Your task to perform on an android device: Check the news Image 0: 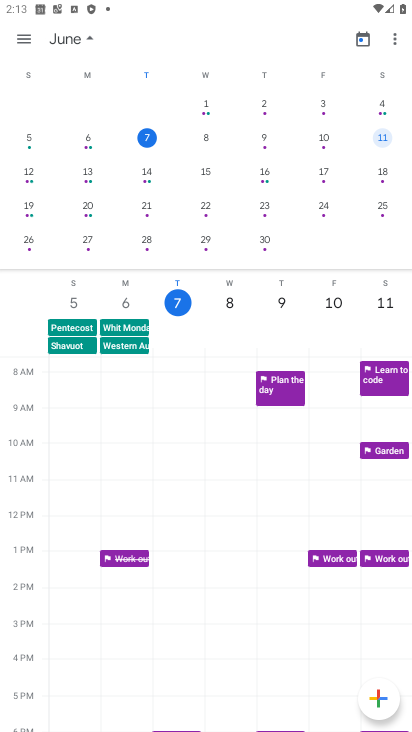
Step 0: press home button
Your task to perform on an android device: Check the news Image 1: 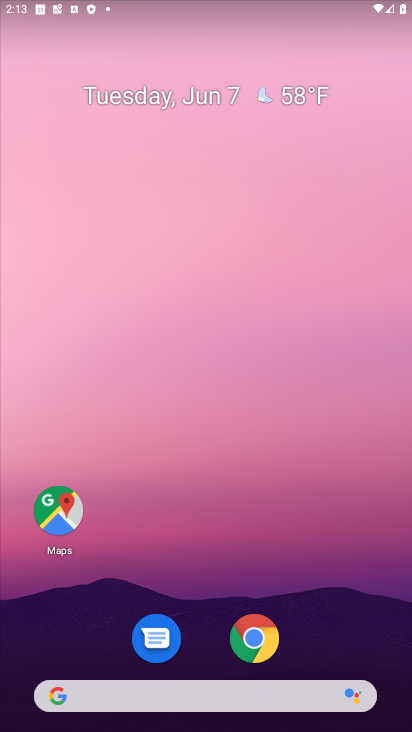
Step 1: drag from (180, 601) to (108, 195)
Your task to perform on an android device: Check the news Image 2: 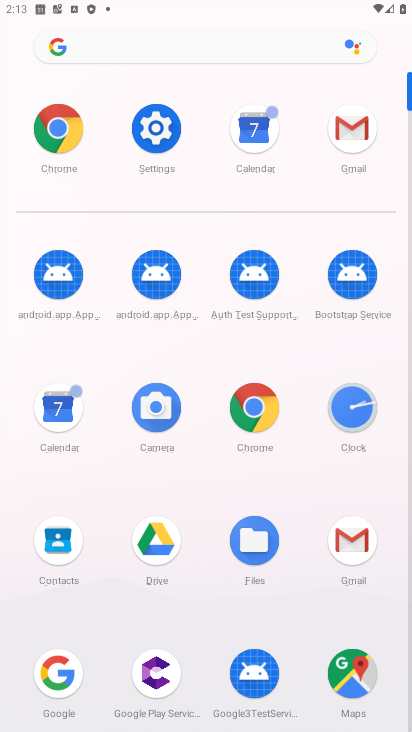
Step 2: click (255, 416)
Your task to perform on an android device: Check the news Image 3: 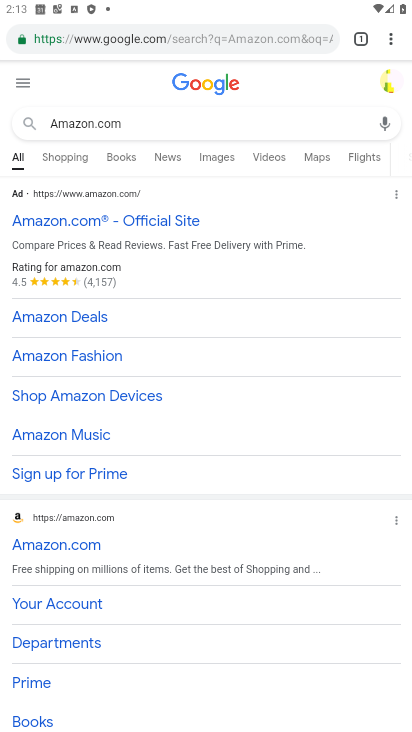
Step 3: click (135, 40)
Your task to perform on an android device: Check the news Image 4: 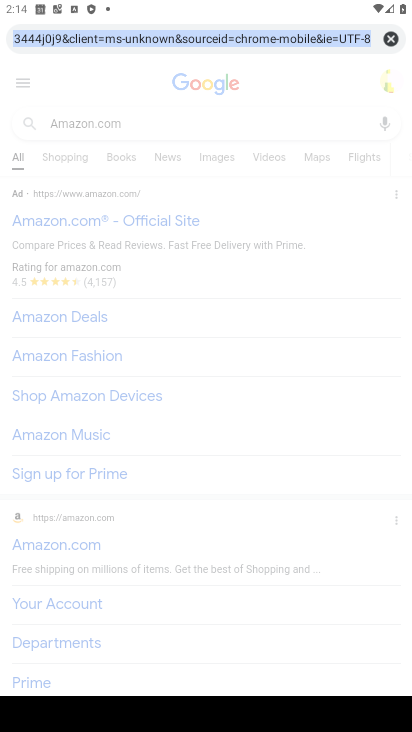
Step 4: type "news"
Your task to perform on an android device: Check the news Image 5: 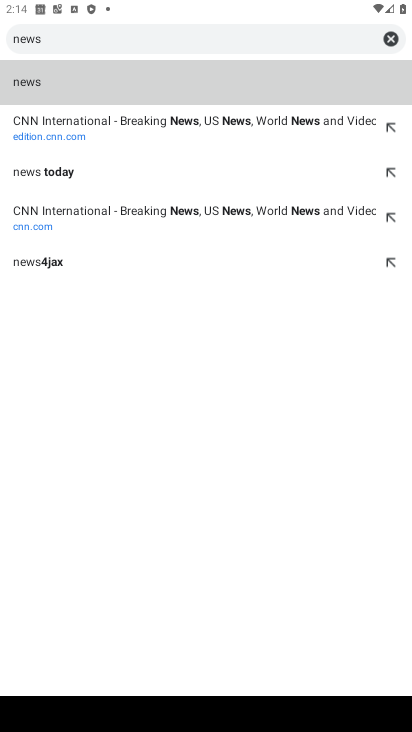
Step 5: click (19, 71)
Your task to perform on an android device: Check the news Image 6: 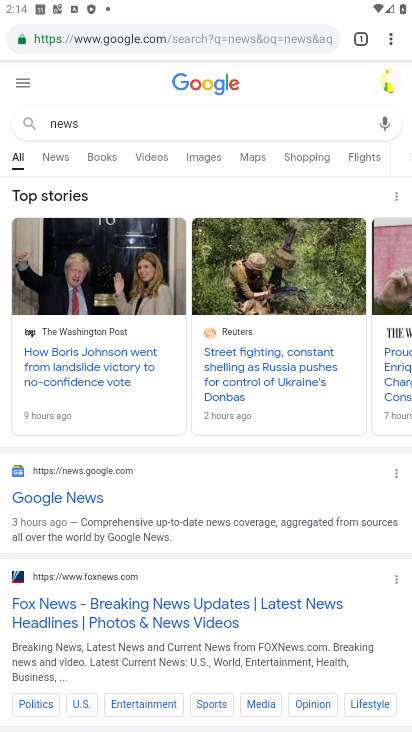
Step 6: task complete